Your task to perform on an android device: change notifications settings Image 0: 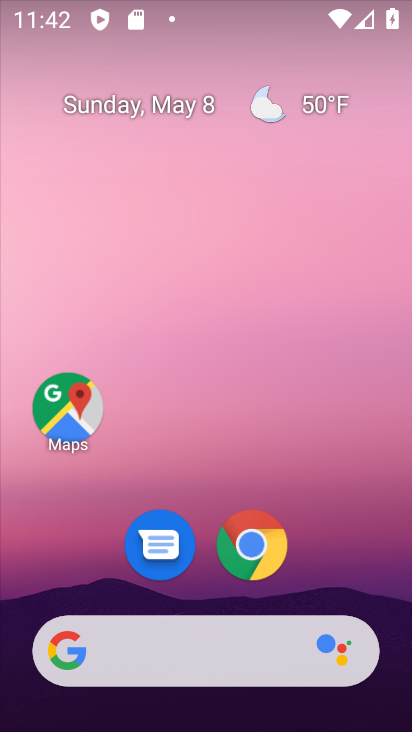
Step 0: drag from (212, 400) to (188, 138)
Your task to perform on an android device: change notifications settings Image 1: 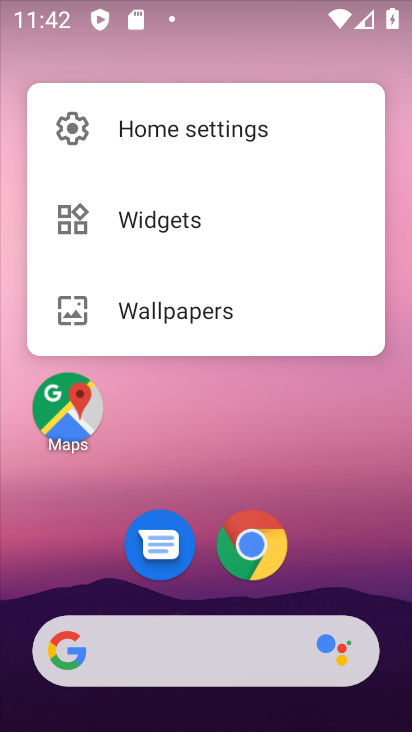
Step 1: click (241, 428)
Your task to perform on an android device: change notifications settings Image 2: 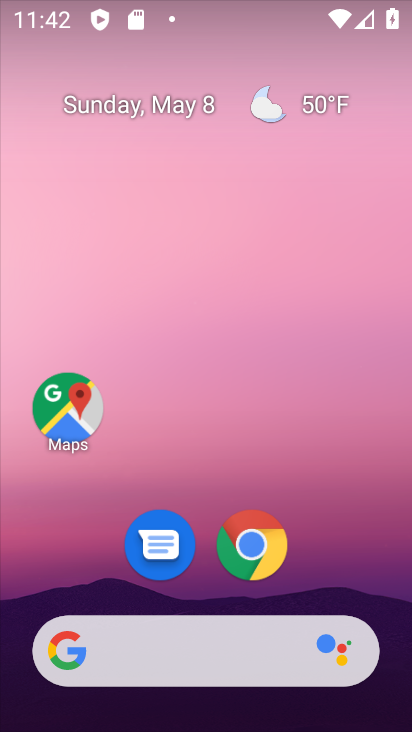
Step 2: drag from (201, 587) to (228, 103)
Your task to perform on an android device: change notifications settings Image 3: 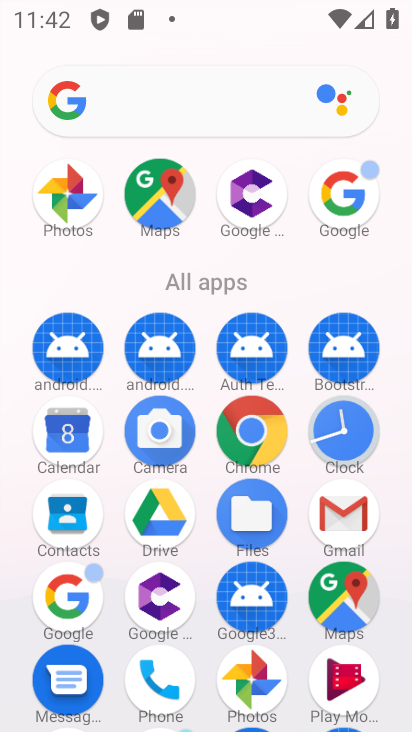
Step 3: drag from (195, 542) to (224, 192)
Your task to perform on an android device: change notifications settings Image 4: 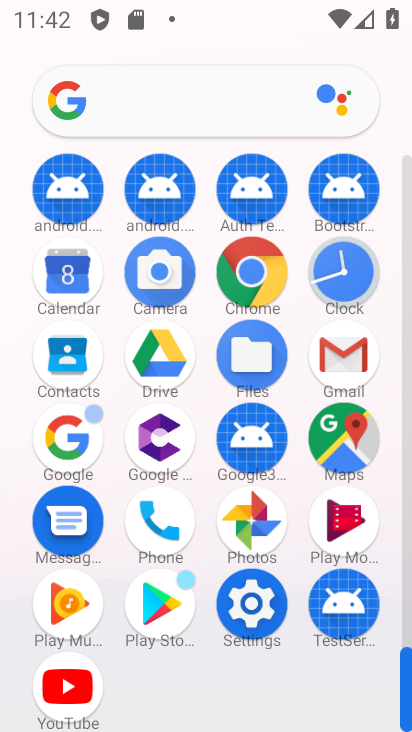
Step 4: click (269, 621)
Your task to perform on an android device: change notifications settings Image 5: 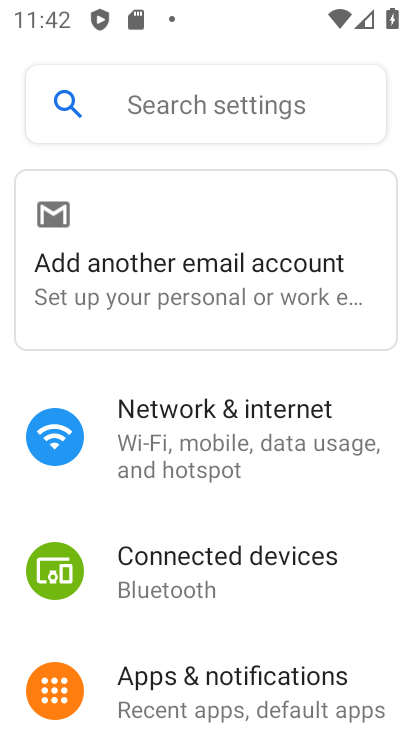
Step 5: click (251, 667)
Your task to perform on an android device: change notifications settings Image 6: 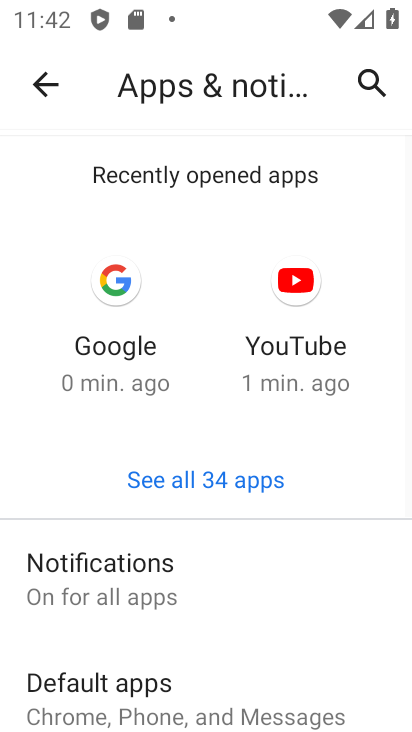
Step 6: click (159, 567)
Your task to perform on an android device: change notifications settings Image 7: 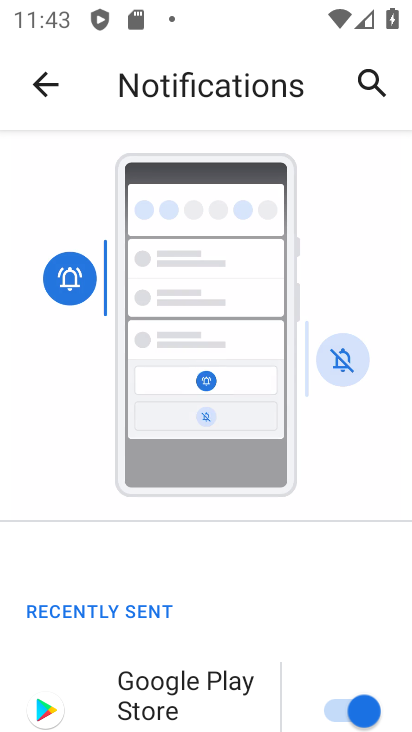
Step 7: drag from (207, 316) to (236, 206)
Your task to perform on an android device: change notifications settings Image 8: 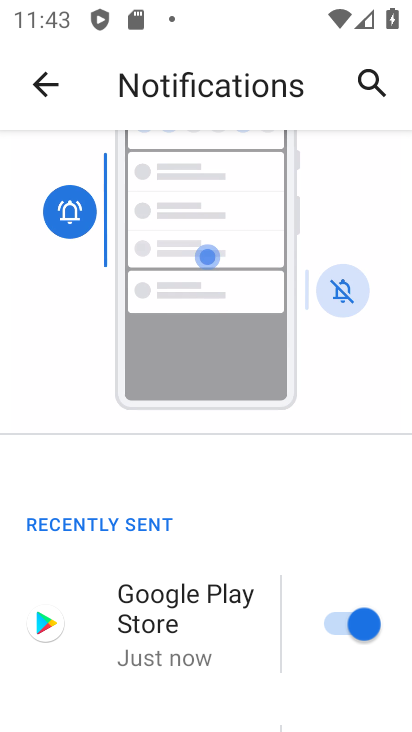
Step 8: drag from (249, 691) to (289, 214)
Your task to perform on an android device: change notifications settings Image 9: 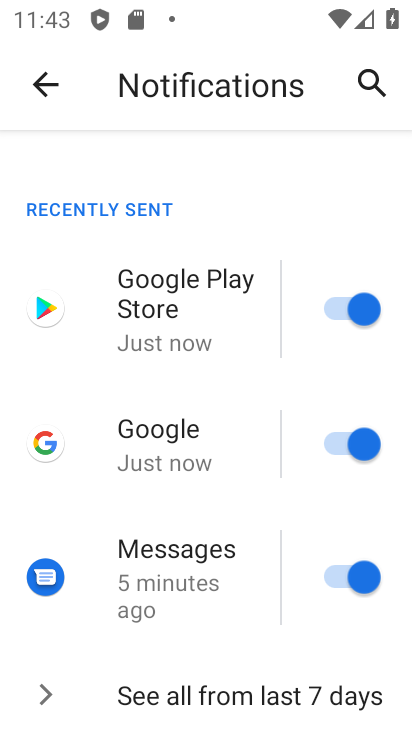
Step 9: drag from (281, 637) to (254, 281)
Your task to perform on an android device: change notifications settings Image 10: 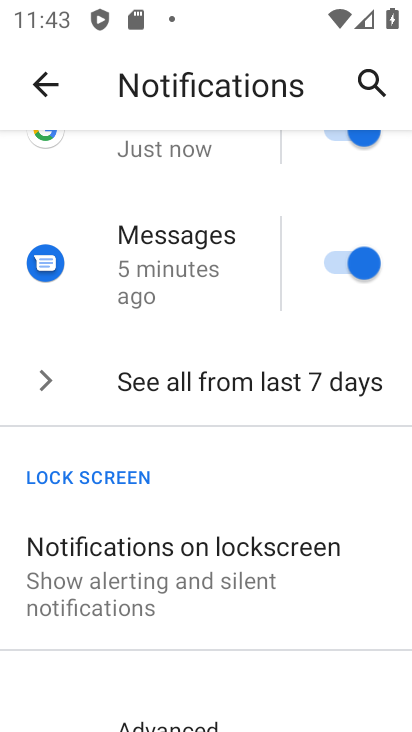
Step 10: drag from (244, 652) to (218, 316)
Your task to perform on an android device: change notifications settings Image 11: 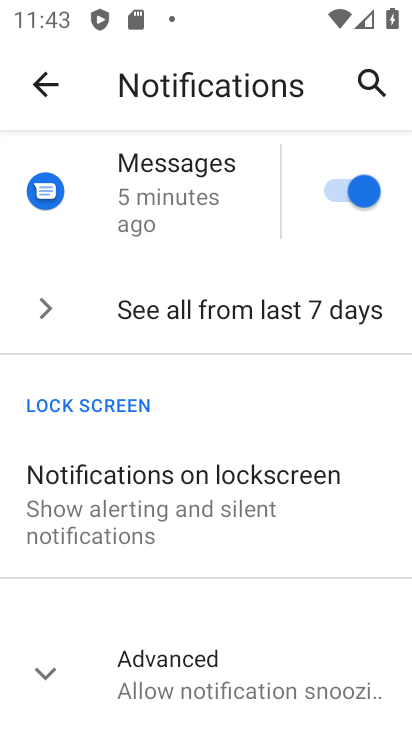
Step 11: drag from (213, 218) to (259, 581)
Your task to perform on an android device: change notifications settings Image 12: 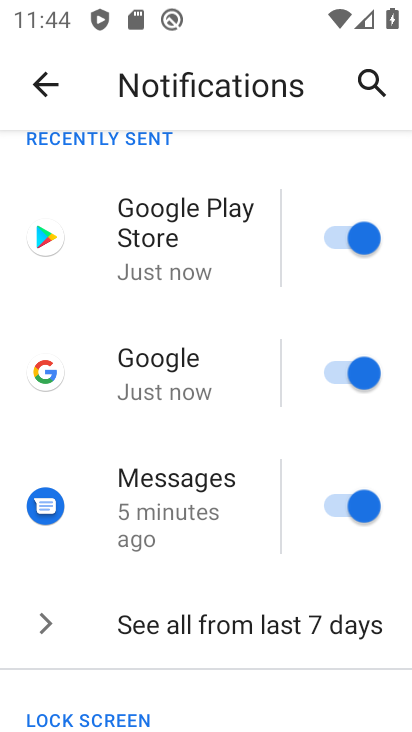
Step 12: drag from (187, 602) to (169, 196)
Your task to perform on an android device: change notifications settings Image 13: 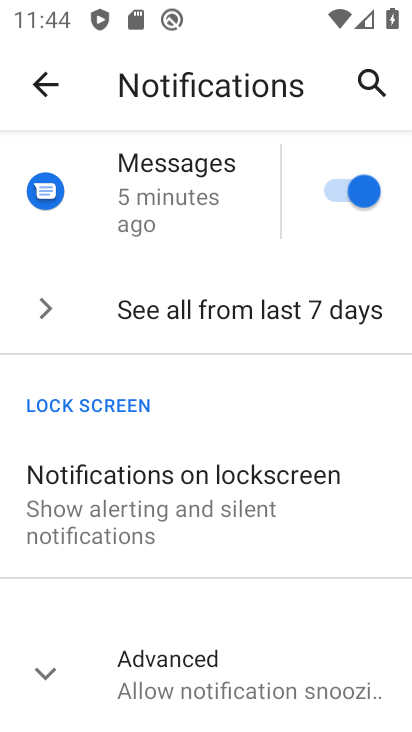
Step 13: drag from (230, 195) to (281, 362)
Your task to perform on an android device: change notifications settings Image 14: 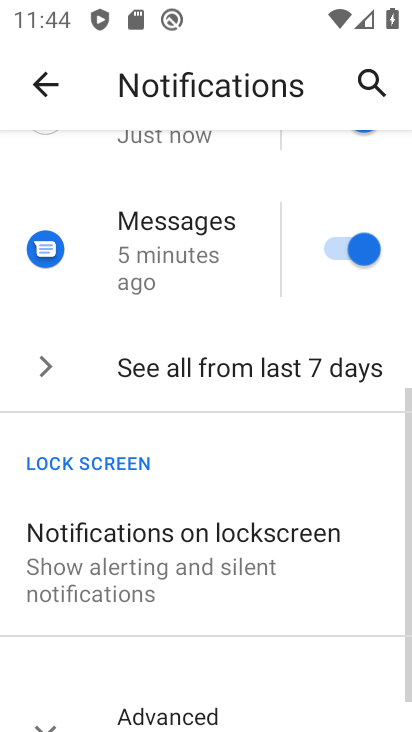
Step 14: click (277, 566)
Your task to perform on an android device: change notifications settings Image 15: 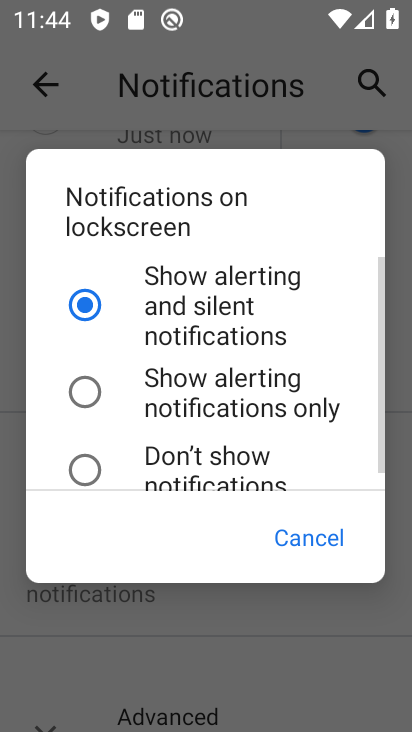
Step 15: click (232, 468)
Your task to perform on an android device: change notifications settings Image 16: 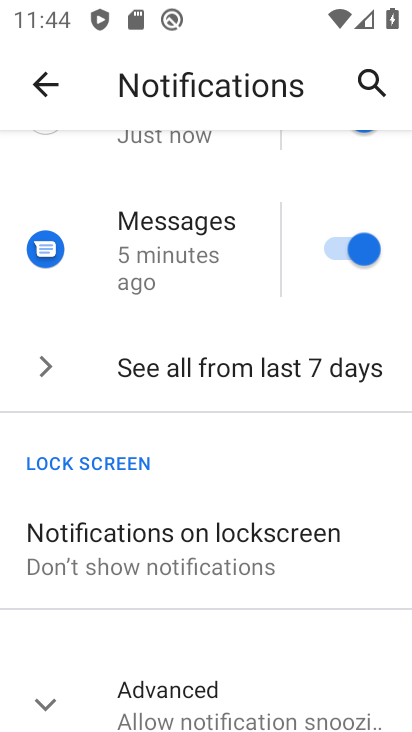
Step 16: task complete